Your task to perform on an android device: turn off airplane mode Image 0: 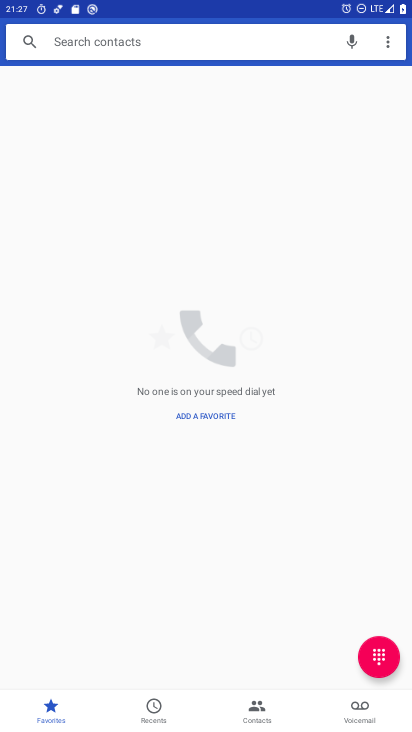
Step 0: drag from (234, 612) to (166, 308)
Your task to perform on an android device: turn off airplane mode Image 1: 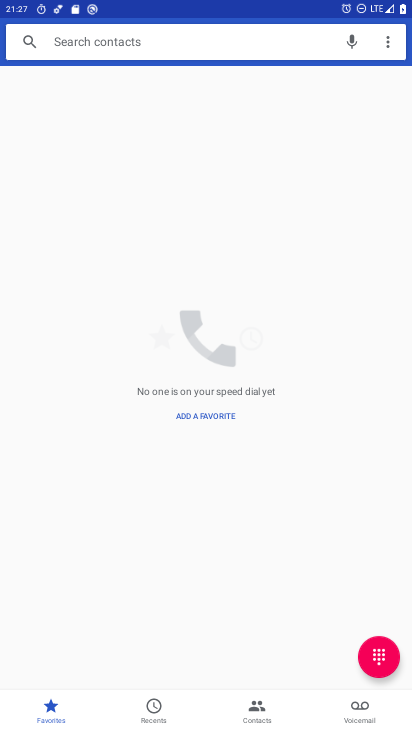
Step 1: press home button
Your task to perform on an android device: turn off airplane mode Image 2: 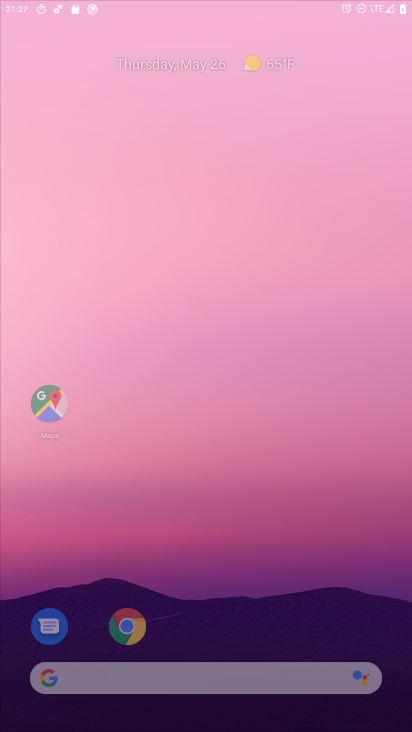
Step 2: drag from (223, 617) to (214, 226)
Your task to perform on an android device: turn off airplane mode Image 3: 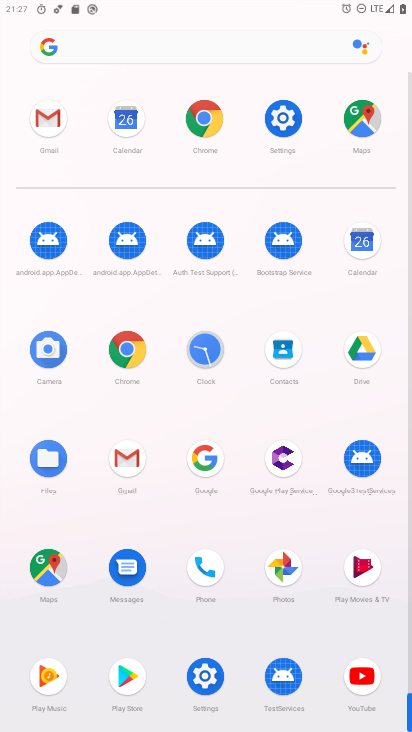
Step 3: click (284, 139)
Your task to perform on an android device: turn off airplane mode Image 4: 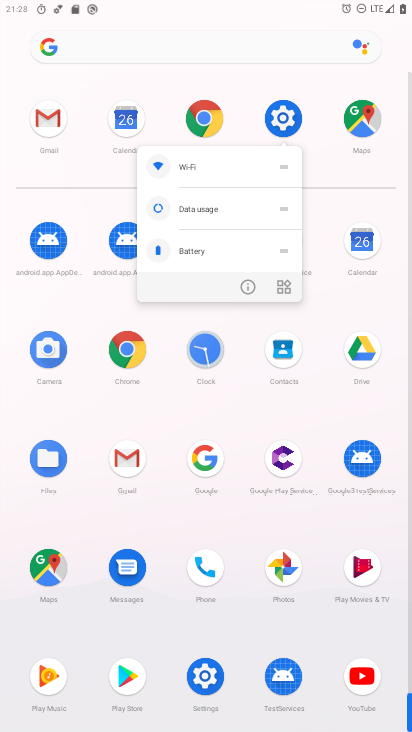
Step 4: click (244, 290)
Your task to perform on an android device: turn off airplane mode Image 5: 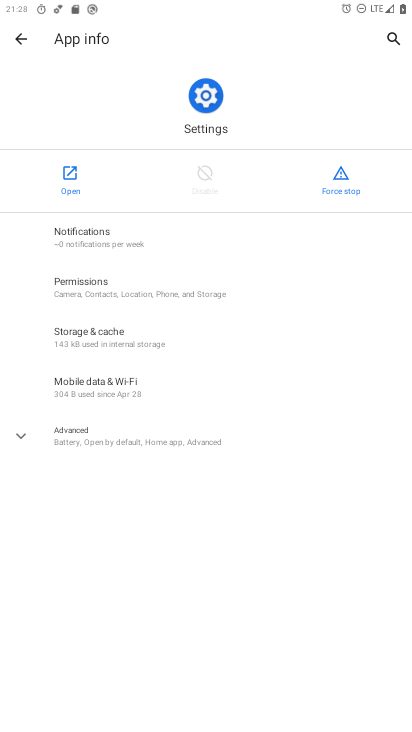
Step 5: click (71, 155)
Your task to perform on an android device: turn off airplane mode Image 6: 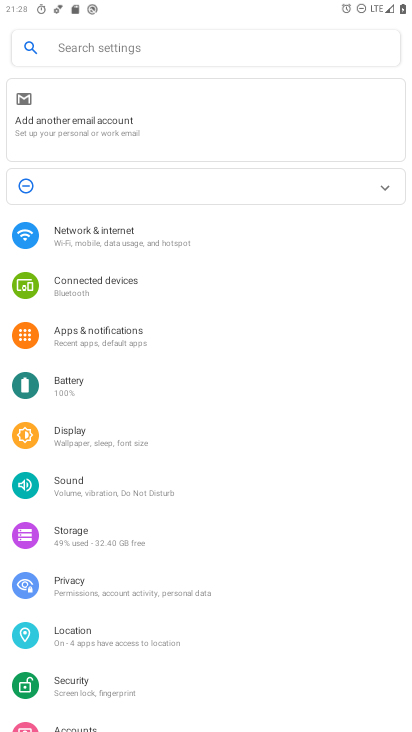
Step 6: click (124, 239)
Your task to perform on an android device: turn off airplane mode Image 7: 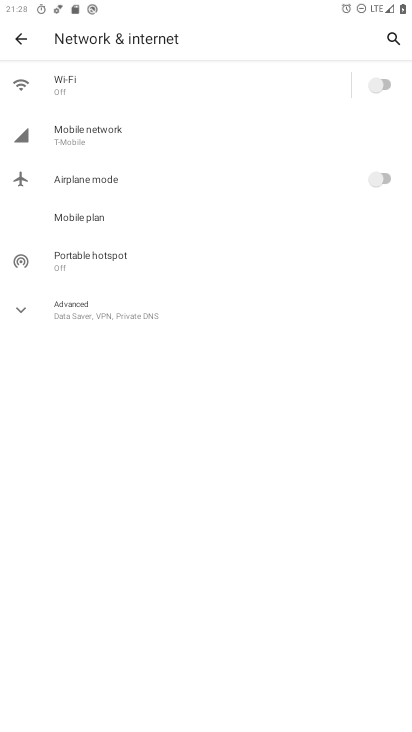
Step 7: task complete